Your task to perform on an android device: check android version Image 0: 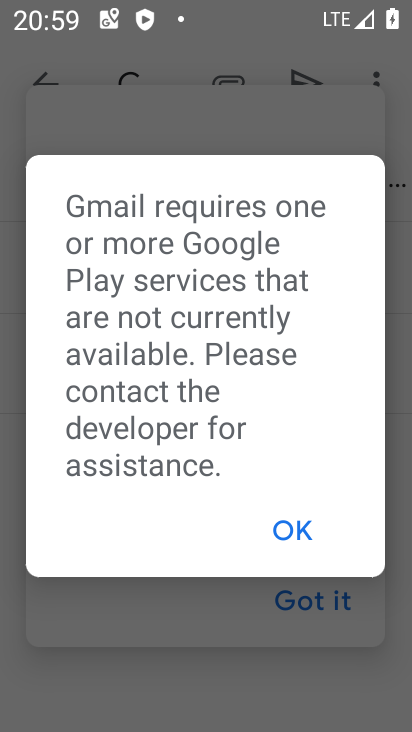
Step 0: press home button
Your task to perform on an android device: check android version Image 1: 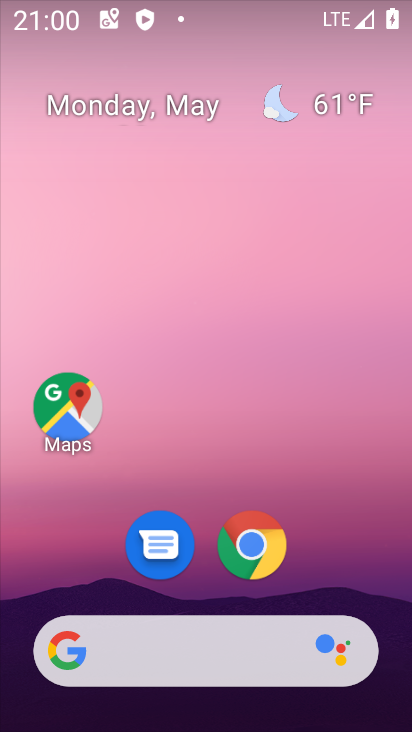
Step 1: drag from (242, 628) to (285, 238)
Your task to perform on an android device: check android version Image 2: 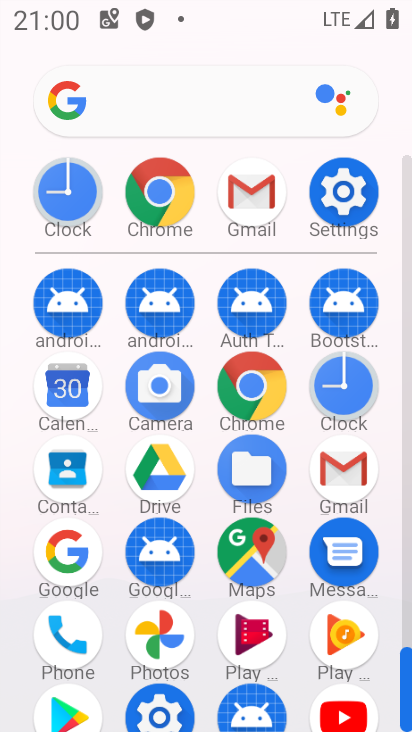
Step 2: click (331, 204)
Your task to perform on an android device: check android version Image 3: 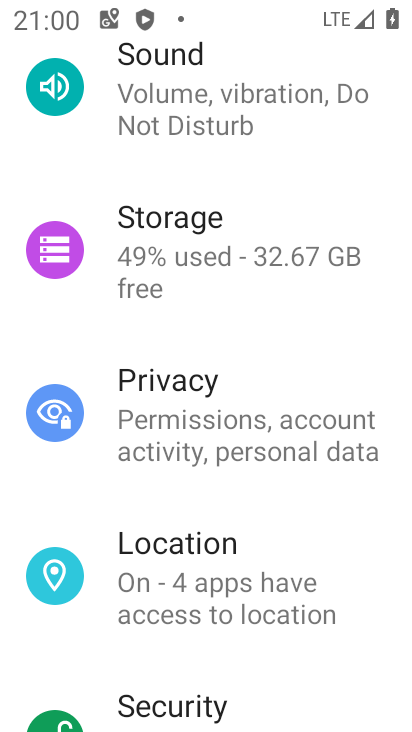
Step 3: drag from (208, 576) to (206, 5)
Your task to perform on an android device: check android version Image 4: 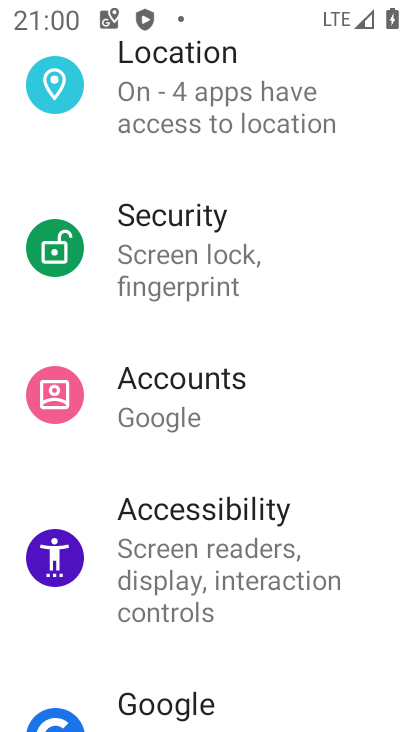
Step 4: drag from (285, 544) to (170, 9)
Your task to perform on an android device: check android version Image 5: 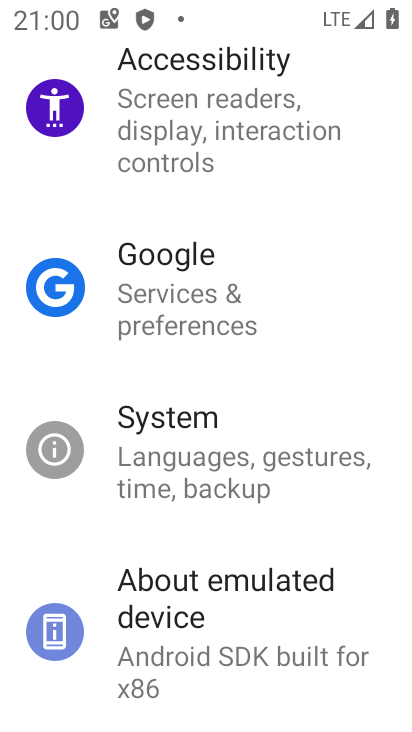
Step 5: click (237, 629)
Your task to perform on an android device: check android version Image 6: 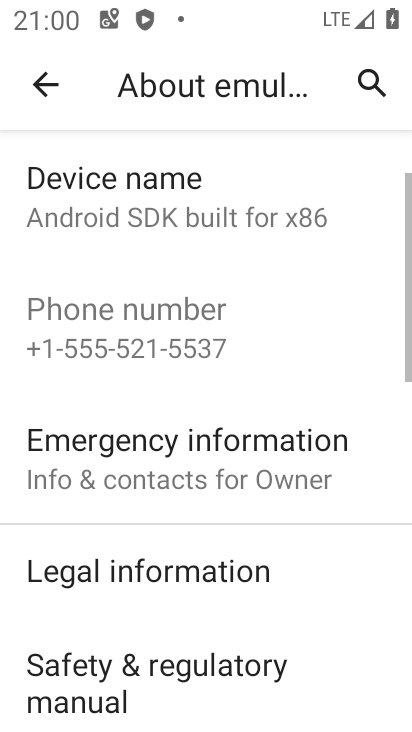
Step 6: drag from (237, 629) to (199, 116)
Your task to perform on an android device: check android version Image 7: 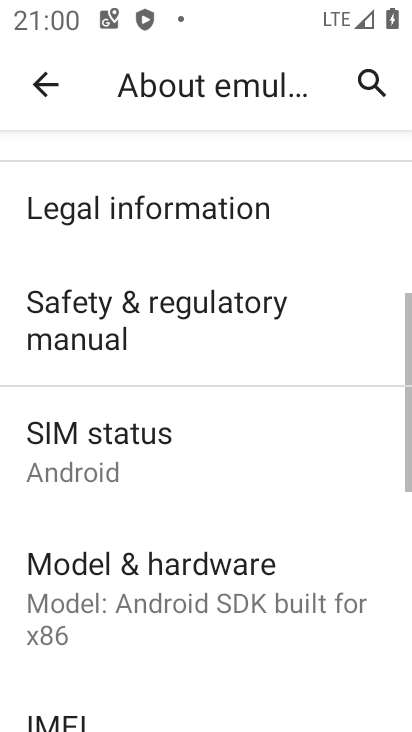
Step 7: drag from (180, 647) to (205, 169)
Your task to perform on an android device: check android version Image 8: 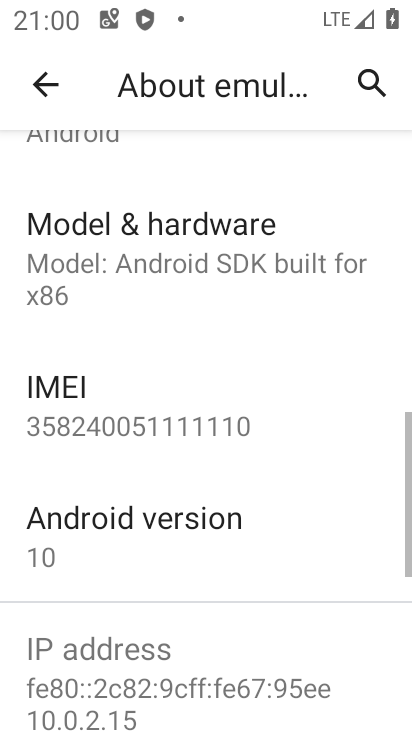
Step 8: click (160, 550)
Your task to perform on an android device: check android version Image 9: 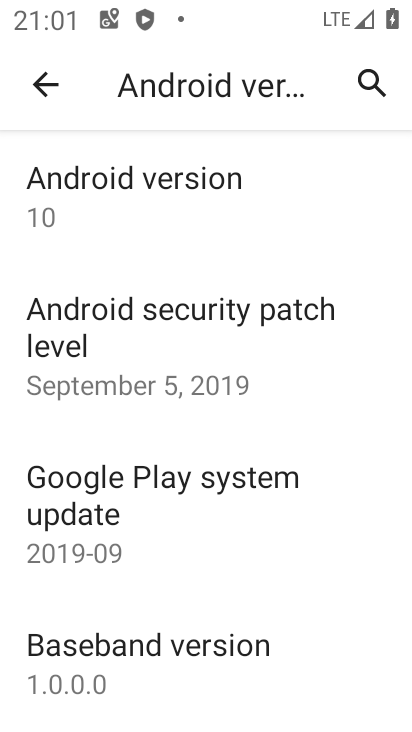
Step 9: task complete